Your task to perform on an android device: uninstall "Adobe Express: Graphic Design" Image 0: 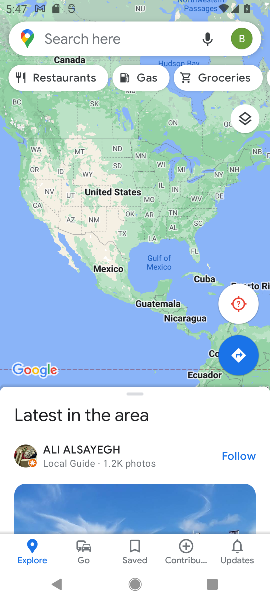
Step 0: press home button
Your task to perform on an android device: uninstall "Adobe Express: Graphic Design" Image 1: 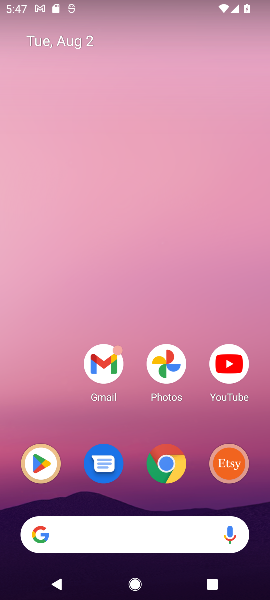
Step 1: click (40, 457)
Your task to perform on an android device: uninstall "Adobe Express: Graphic Design" Image 2: 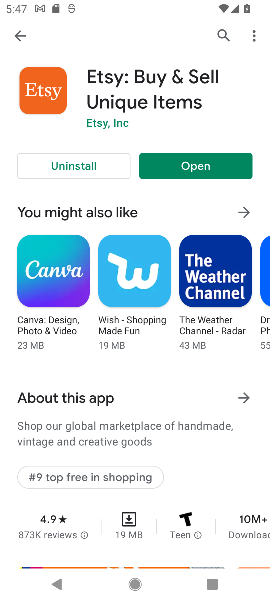
Step 2: click (221, 34)
Your task to perform on an android device: uninstall "Adobe Express: Graphic Design" Image 3: 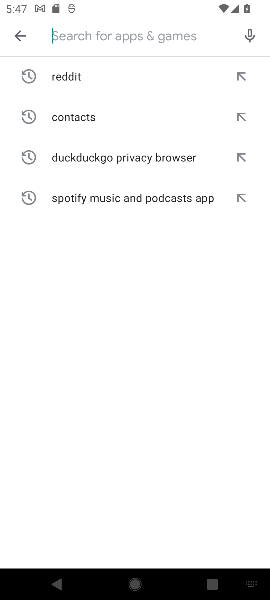
Step 3: type "Adobe Express: Graphic Design"
Your task to perform on an android device: uninstall "Adobe Express: Graphic Design" Image 4: 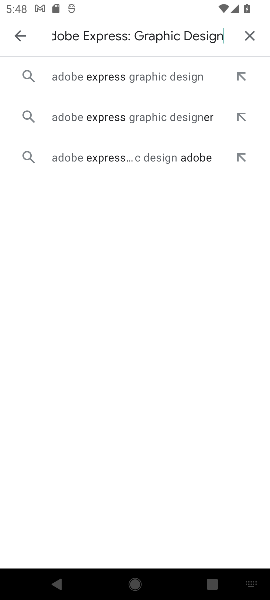
Step 4: click (89, 81)
Your task to perform on an android device: uninstall "Adobe Express: Graphic Design" Image 5: 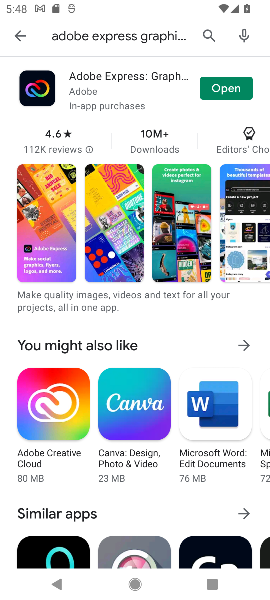
Step 5: click (73, 85)
Your task to perform on an android device: uninstall "Adobe Express: Graphic Design" Image 6: 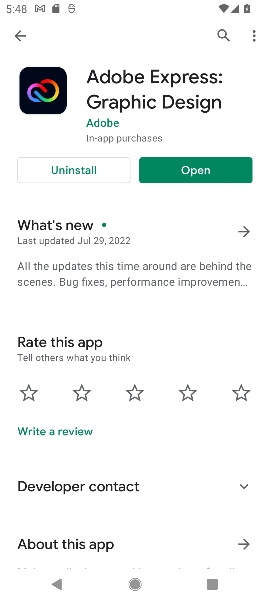
Step 6: click (89, 168)
Your task to perform on an android device: uninstall "Adobe Express: Graphic Design" Image 7: 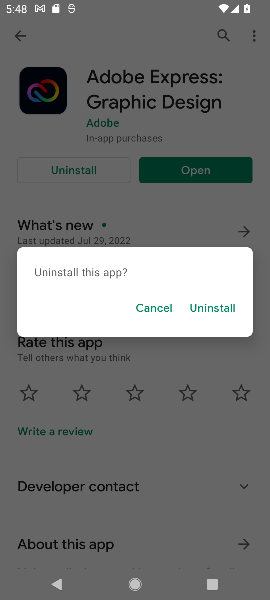
Step 7: click (194, 307)
Your task to perform on an android device: uninstall "Adobe Express: Graphic Design" Image 8: 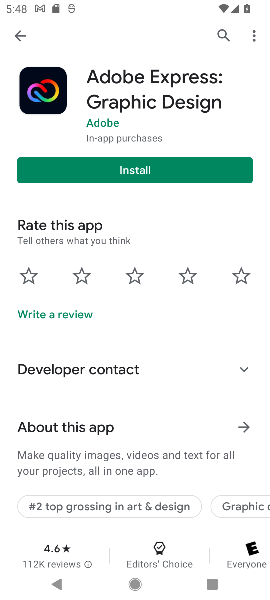
Step 8: task complete